Your task to perform on an android device: turn on airplane mode Image 0: 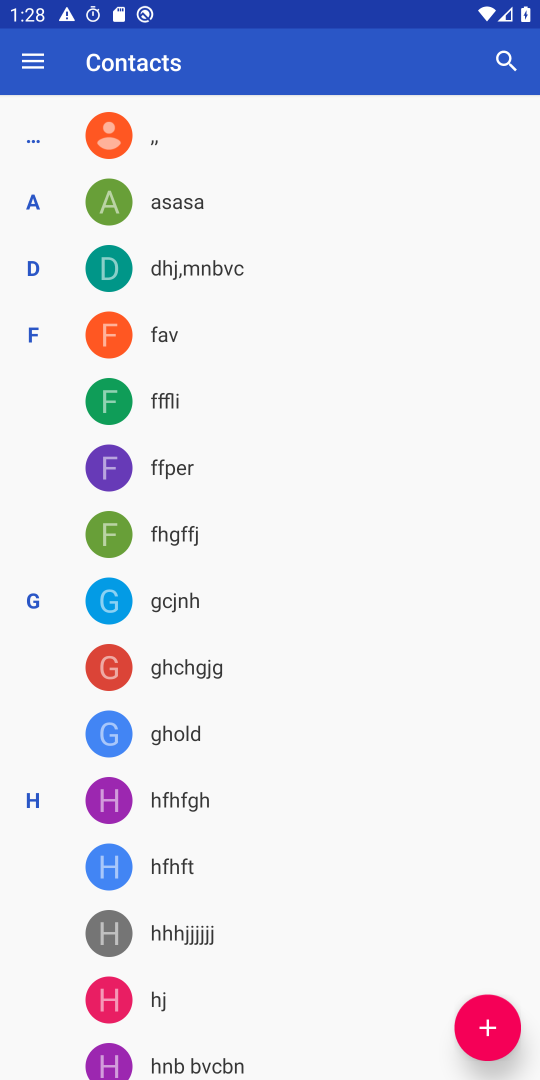
Step 0: press home button
Your task to perform on an android device: turn on airplane mode Image 1: 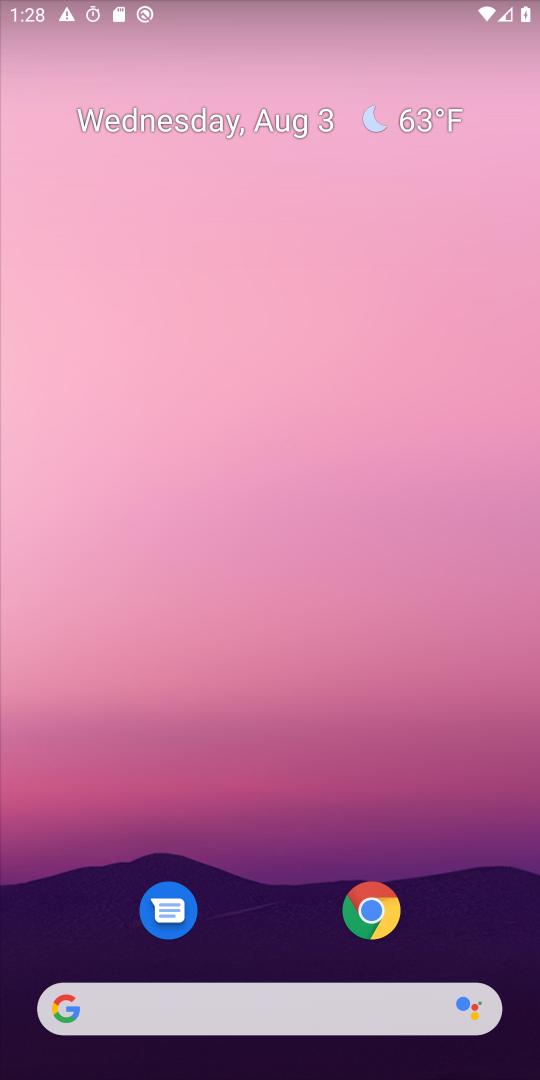
Step 1: drag from (322, 1024) to (420, 3)
Your task to perform on an android device: turn on airplane mode Image 2: 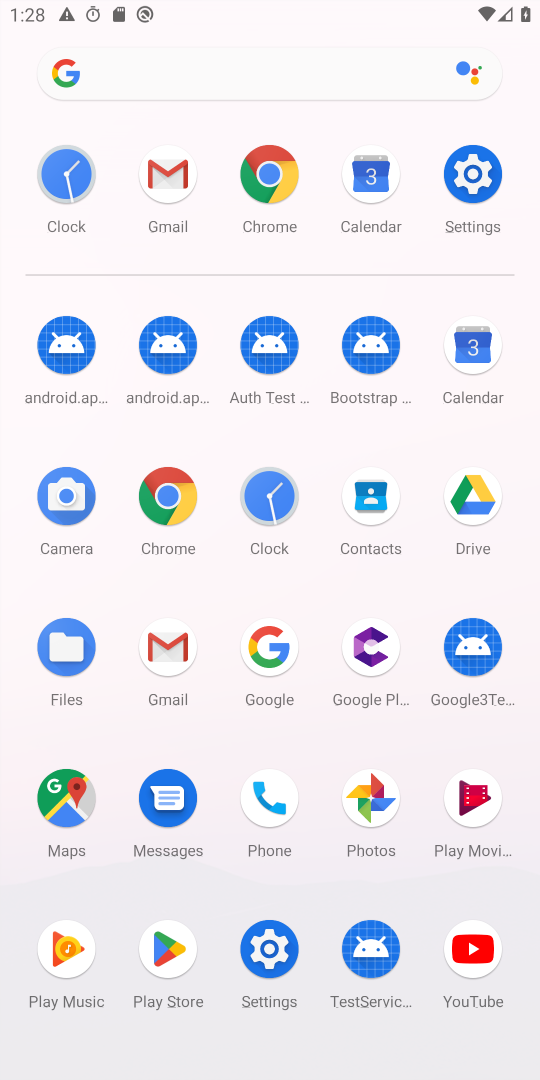
Step 2: click (472, 171)
Your task to perform on an android device: turn on airplane mode Image 3: 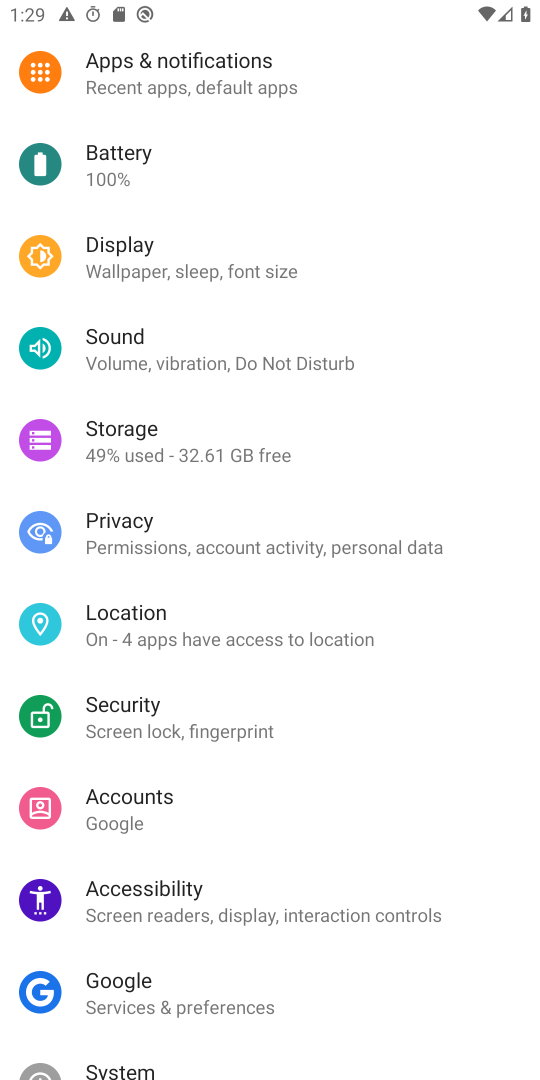
Step 3: drag from (419, 203) to (398, 847)
Your task to perform on an android device: turn on airplane mode Image 4: 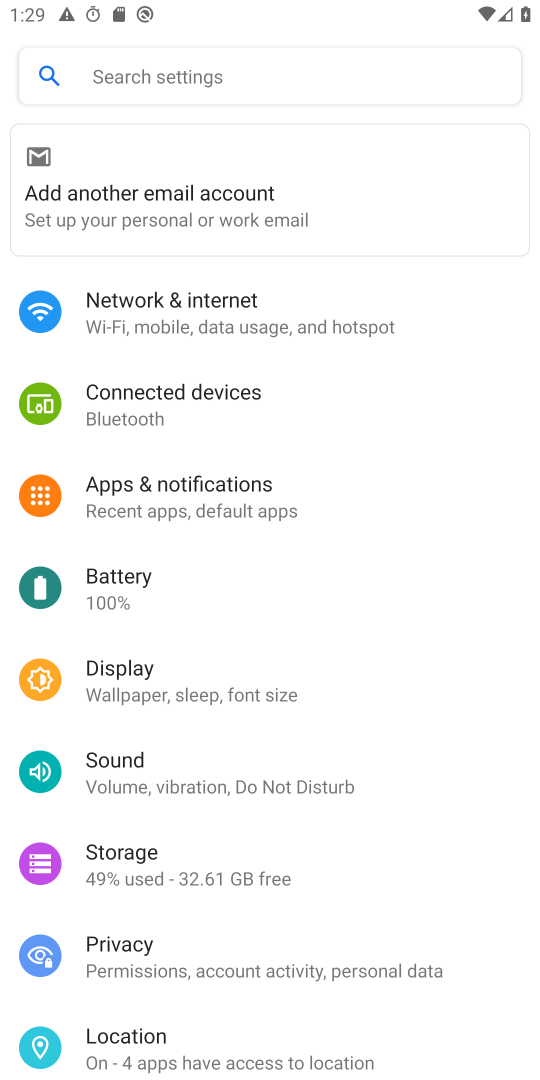
Step 4: click (272, 318)
Your task to perform on an android device: turn on airplane mode Image 5: 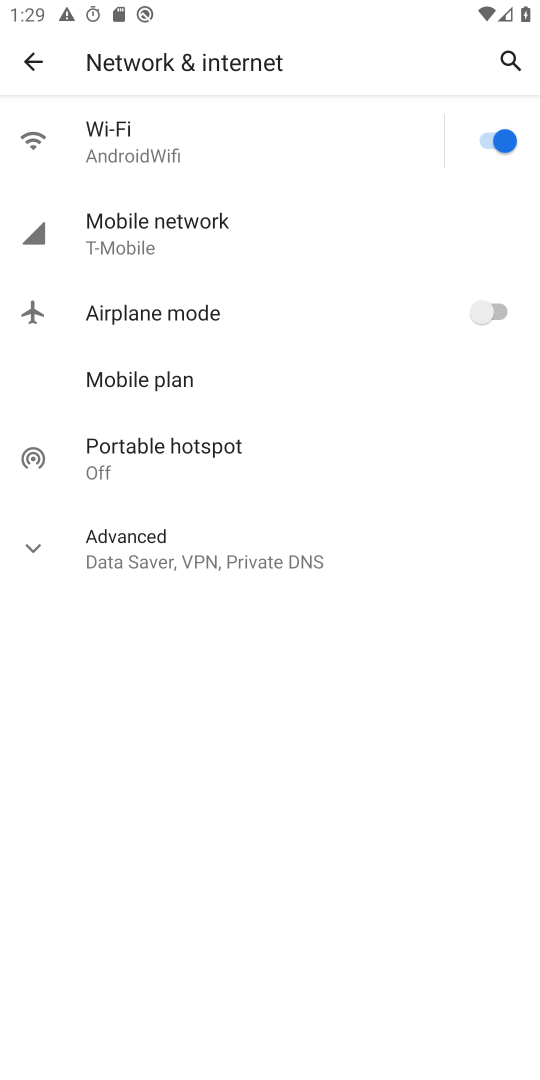
Step 5: click (500, 309)
Your task to perform on an android device: turn on airplane mode Image 6: 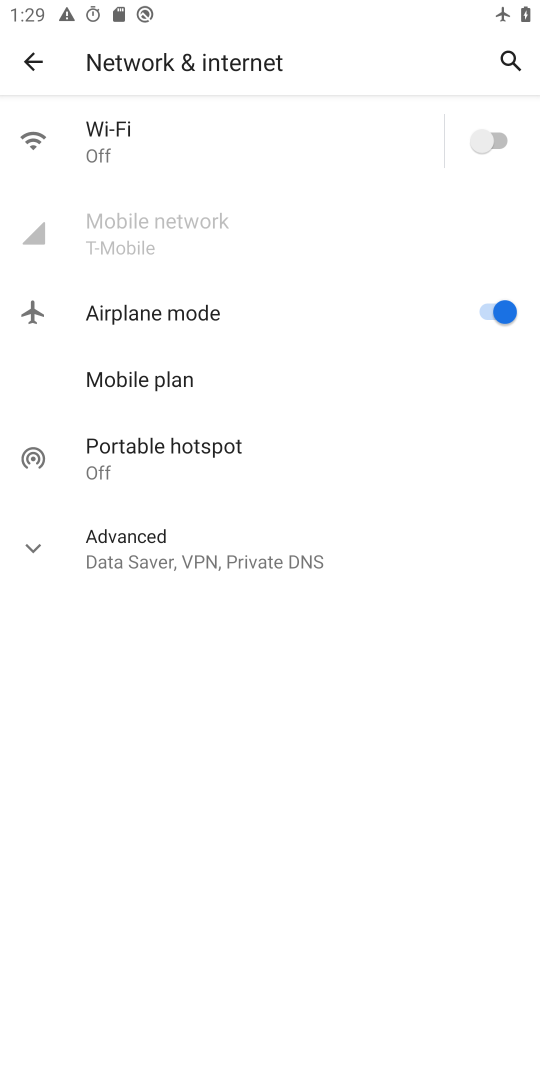
Step 6: task complete